Your task to perform on an android device: Go to Yahoo.com Image 0: 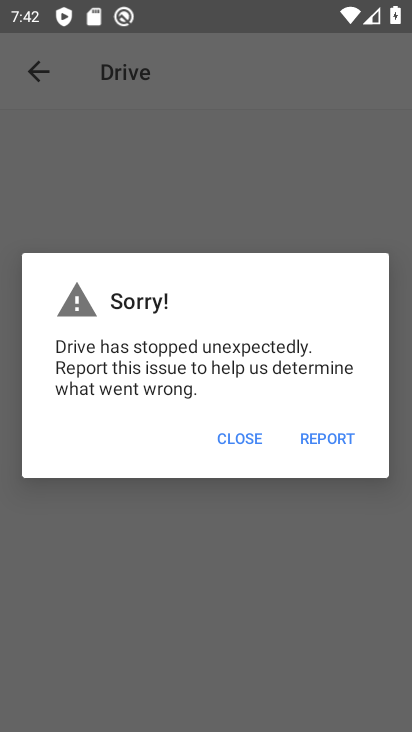
Step 0: press home button
Your task to perform on an android device: Go to Yahoo.com Image 1: 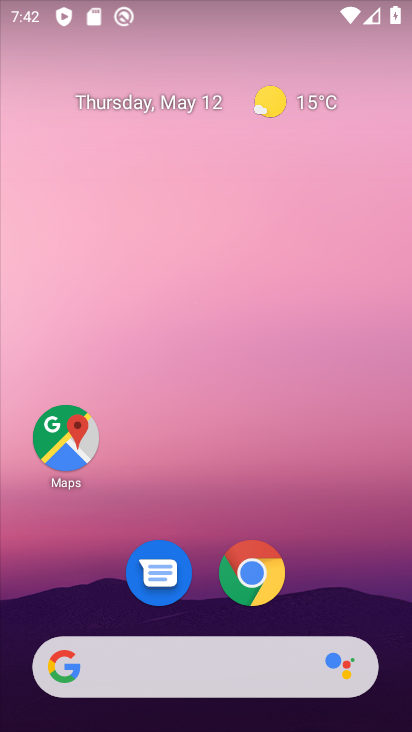
Step 1: click (242, 577)
Your task to perform on an android device: Go to Yahoo.com Image 2: 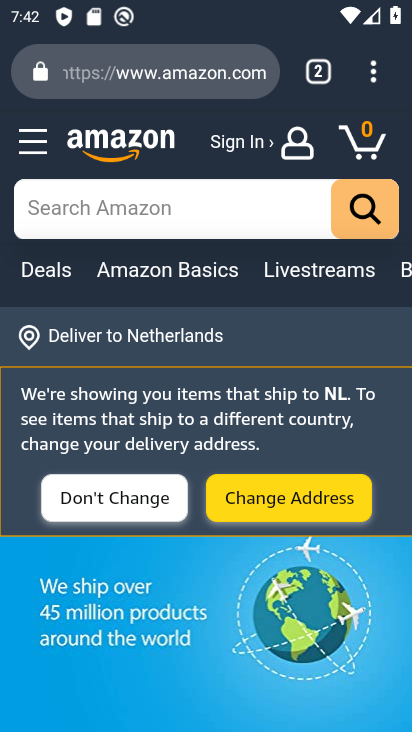
Step 2: click (375, 71)
Your task to perform on an android device: Go to Yahoo.com Image 3: 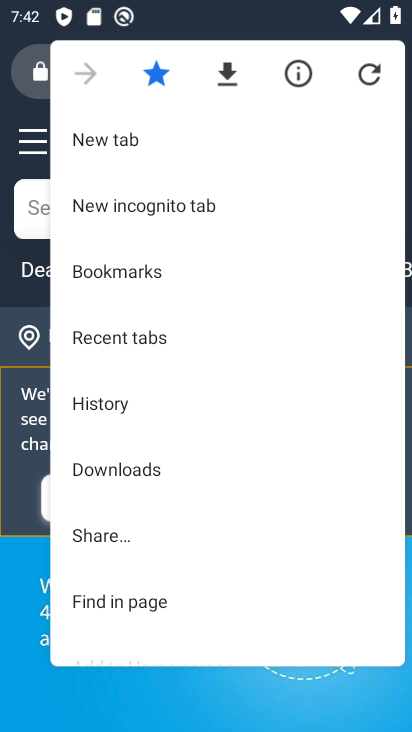
Step 3: click (98, 140)
Your task to perform on an android device: Go to Yahoo.com Image 4: 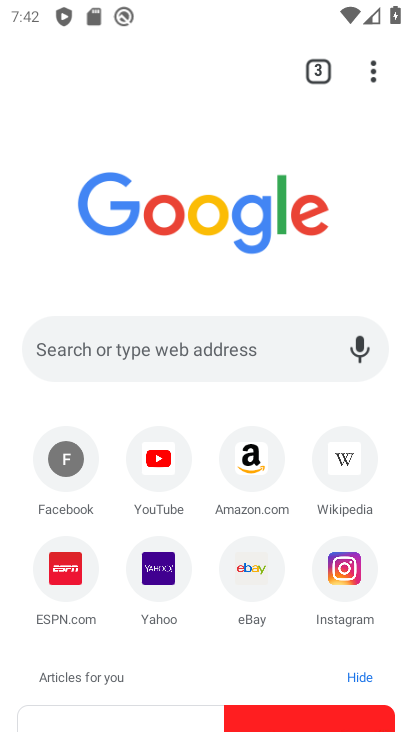
Step 4: click (150, 571)
Your task to perform on an android device: Go to Yahoo.com Image 5: 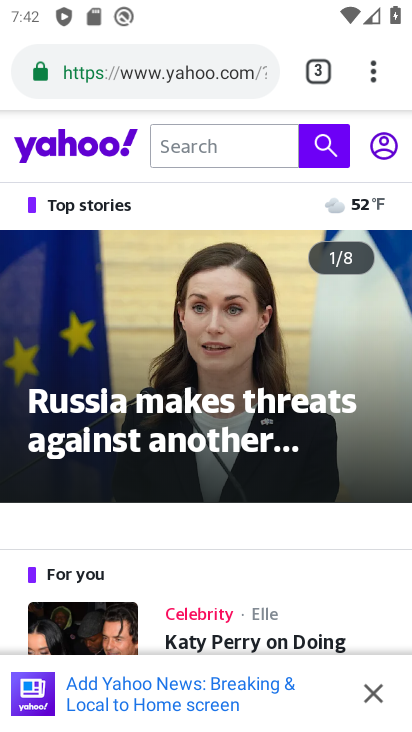
Step 5: task complete